Your task to perform on an android device: Add usb-c to usb-b to the cart on amazon, then select checkout. Image 0: 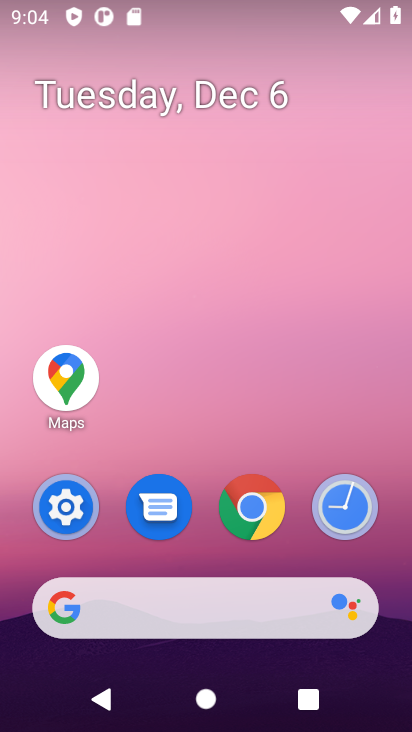
Step 0: click (123, 606)
Your task to perform on an android device: Add usb-c to usb-b to the cart on amazon, then select checkout. Image 1: 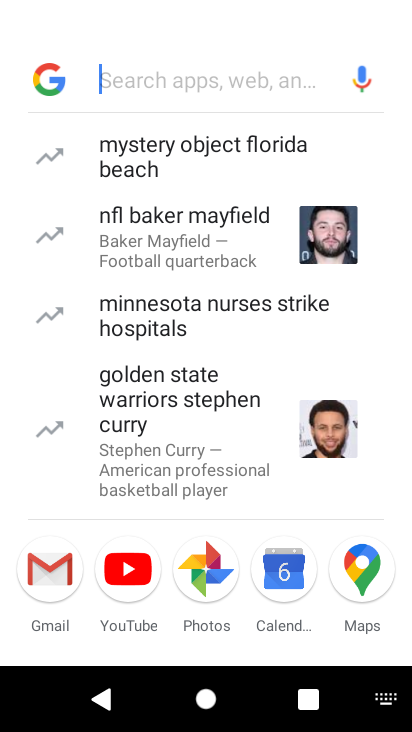
Step 1: type " amazon"
Your task to perform on an android device: Add usb-c to usb-b to the cart on amazon, then select checkout. Image 2: 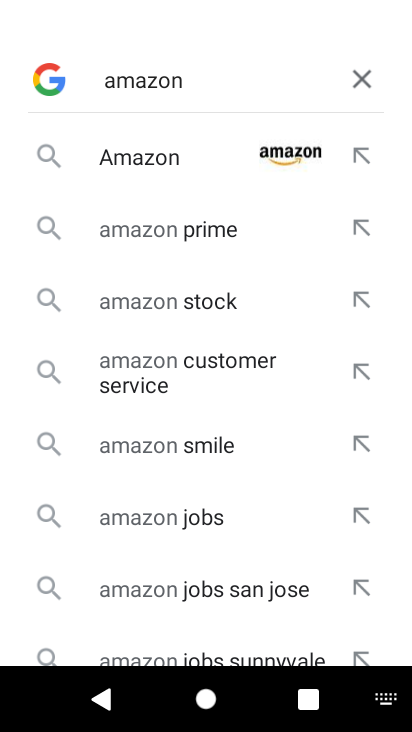
Step 2: press enter
Your task to perform on an android device: Add usb-c to usb-b to the cart on amazon, then select checkout. Image 3: 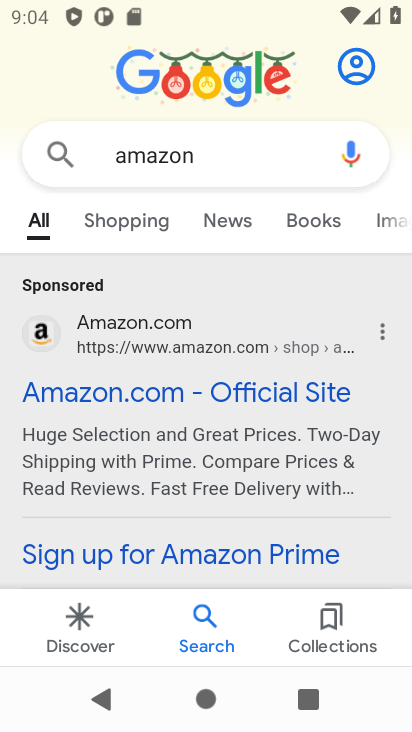
Step 3: click (285, 392)
Your task to perform on an android device: Add usb-c to usb-b to the cart on amazon, then select checkout. Image 4: 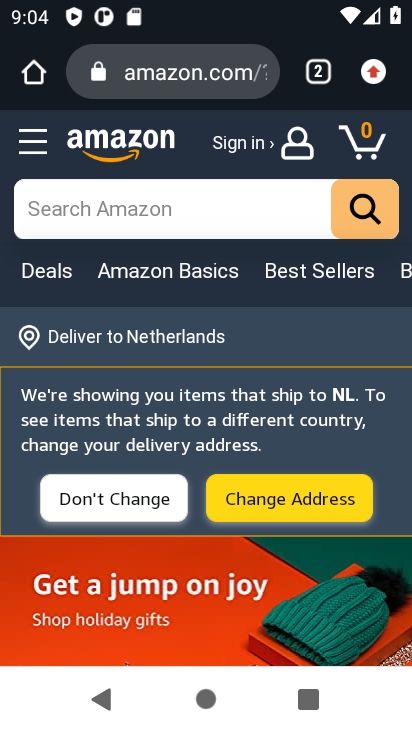
Step 4: click (121, 214)
Your task to perform on an android device: Add usb-c to usb-b to the cart on amazon, then select checkout. Image 5: 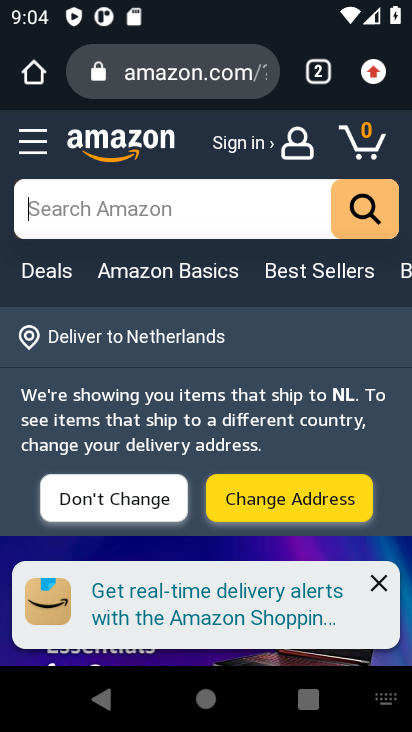
Step 5: type "usb-c to usb-b "
Your task to perform on an android device: Add usb-c to usb-b to the cart on amazon, then select checkout. Image 6: 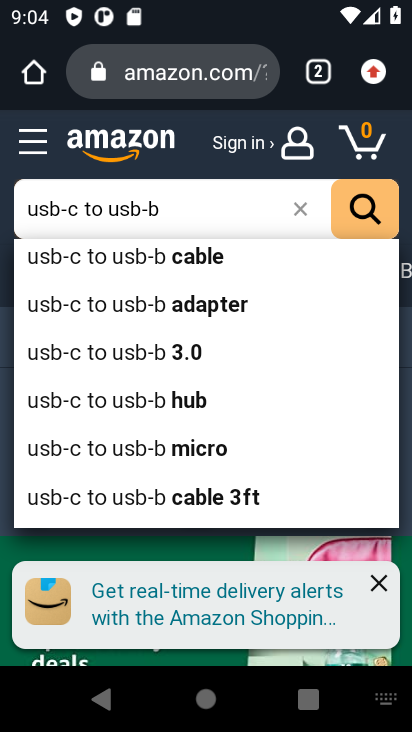
Step 6: click (363, 207)
Your task to perform on an android device: Add usb-c to usb-b to the cart on amazon, then select checkout. Image 7: 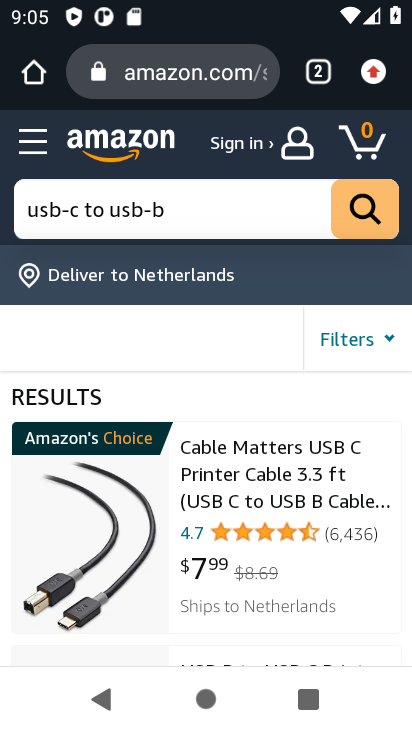
Step 7: click (266, 495)
Your task to perform on an android device: Add usb-c to usb-b to the cart on amazon, then select checkout. Image 8: 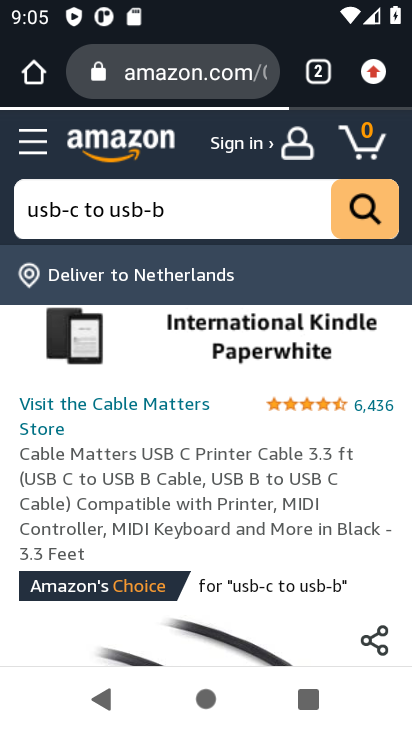
Step 8: drag from (263, 559) to (263, 346)
Your task to perform on an android device: Add usb-c to usb-b to the cart on amazon, then select checkout. Image 9: 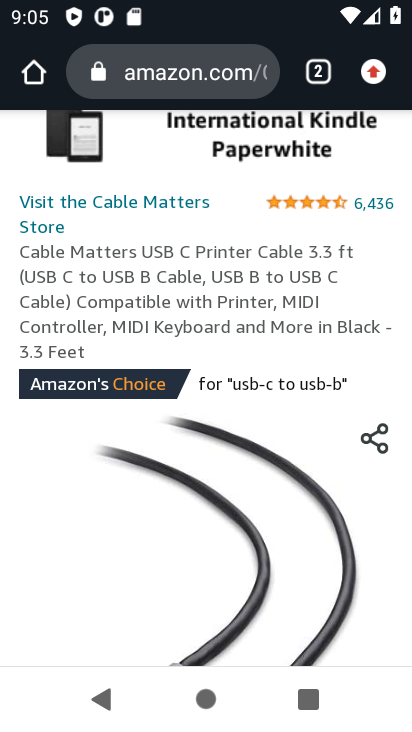
Step 9: drag from (237, 581) to (260, 372)
Your task to perform on an android device: Add usb-c to usb-b to the cart on amazon, then select checkout. Image 10: 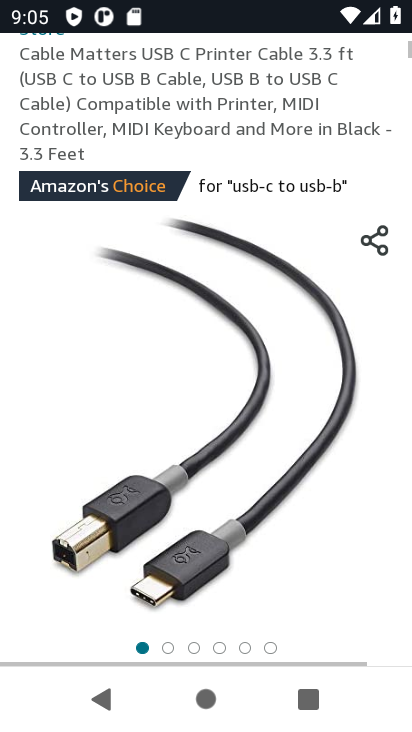
Step 10: drag from (255, 570) to (255, 320)
Your task to perform on an android device: Add usb-c to usb-b to the cart on amazon, then select checkout. Image 11: 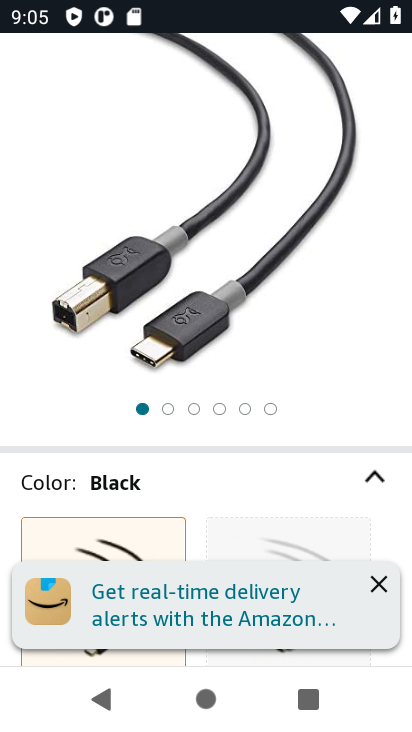
Step 11: drag from (174, 481) to (198, 174)
Your task to perform on an android device: Add usb-c to usb-b to the cart on amazon, then select checkout. Image 12: 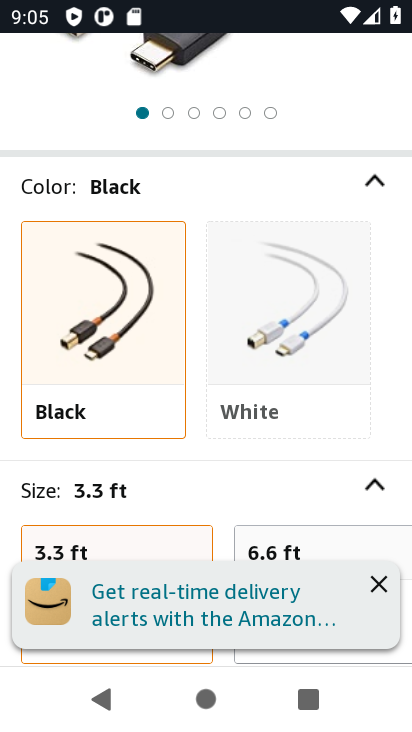
Step 12: drag from (178, 486) to (212, 271)
Your task to perform on an android device: Add usb-c to usb-b to the cart on amazon, then select checkout. Image 13: 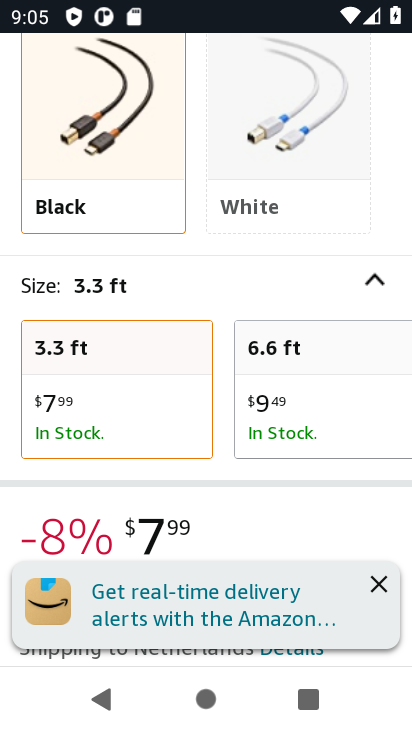
Step 13: drag from (181, 545) to (191, 243)
Your task to perform on an android device: Add usb-c to usb-b to the cart on amazon, then select checkout. Image 14: 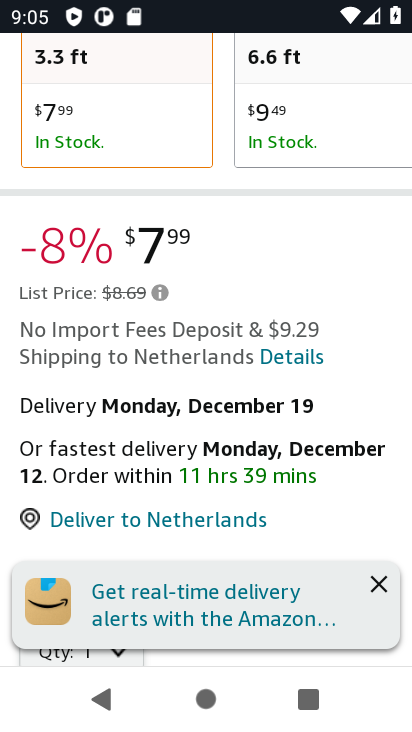
Step 14: drag from (181, 468) to (202, 185)
Your task to perform on an android device: Add usb-c to usb-b to the cart on amazon, then select checkout. Image 15: 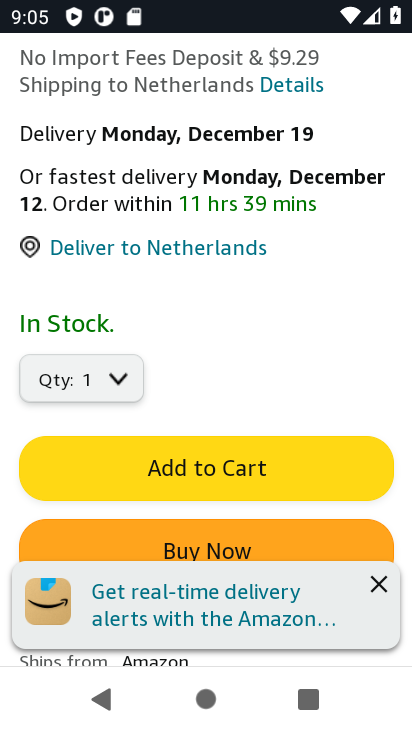
Step 15: click (220, 482)
Your task to perform on an android device: Add usb-c to usb-b to the cart on amazon, then select checkout. Image 16: 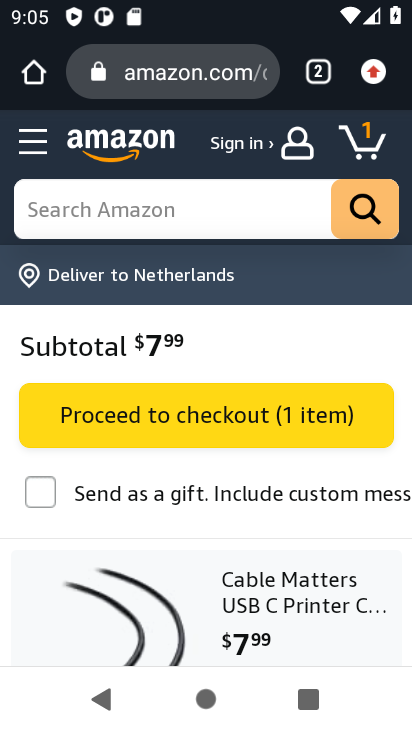
Step 16: task complete